Your task to perform on an android device: change the upload size in google photos Image 0: 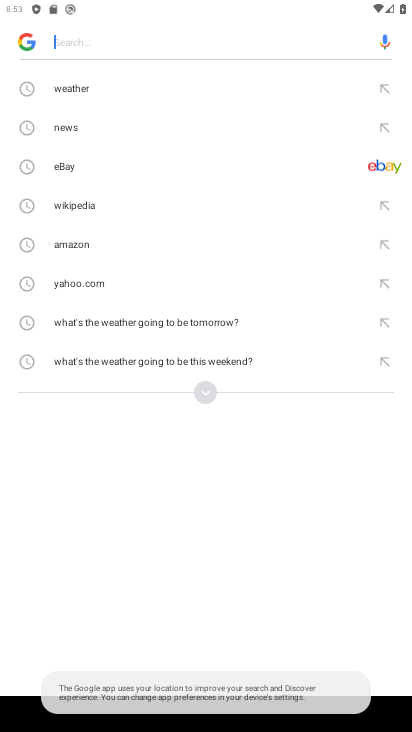
Step 0: press back button
Your task to perform on an android device: change the upload size in google photos Image 1: 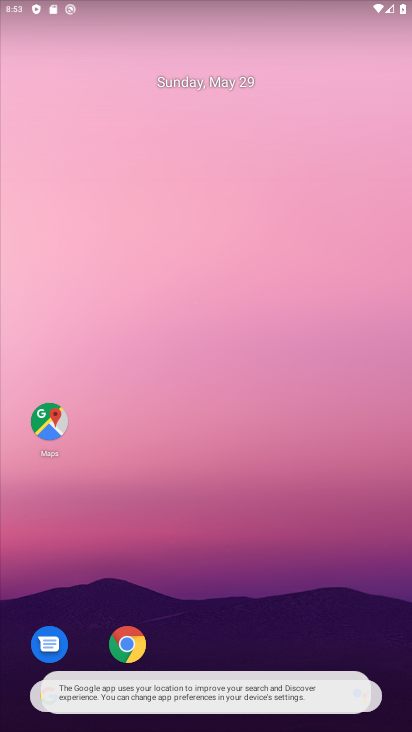
Step 1: drag from (212, 515) to (127, 27)
Your task to perform on an android device: change the upload size in google photos Image 2: 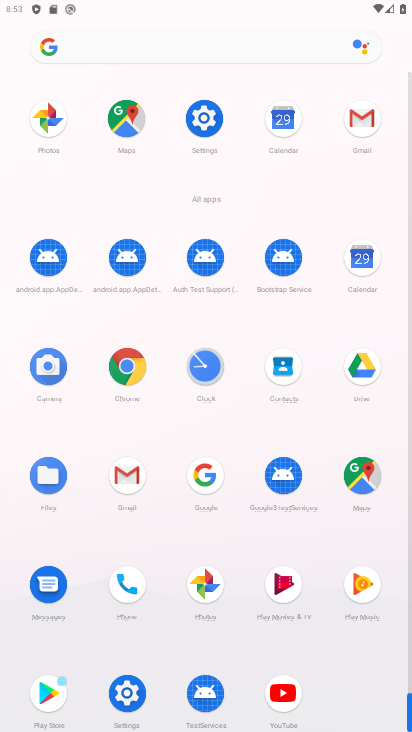
Step 2: drag from (17, 534) to (11, 165)
Your task to perform on an android device: change the upload size in google photos Image 3: 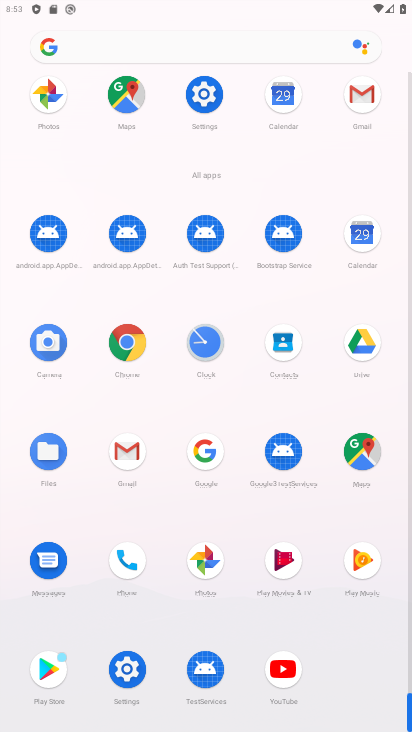
Step 3: click (207, 558)
Your task to perform on an android device: change the upload size in google photos Image 4: 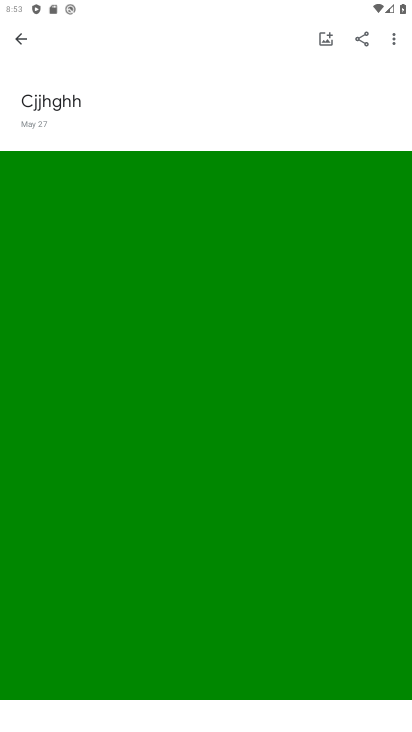
Step 4: click (25, 42)
Your task to perform on an android device: change the upload size in google photos Image 5: 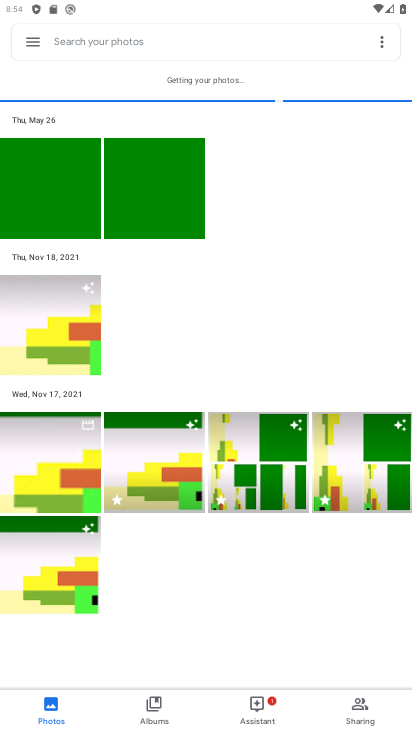
Step 5: click (28, 46)
Your task to perform on an android device: change the upload size in google photos Image 6: 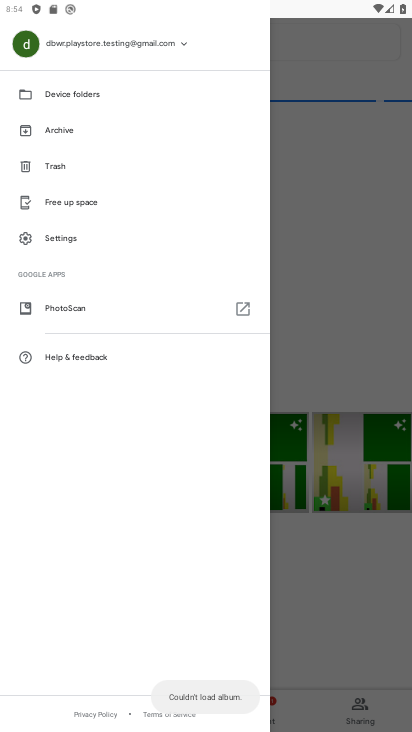
Step 6: click (82, 233)
Your task to perform on an android device: change the upload size in google photos Image 7: 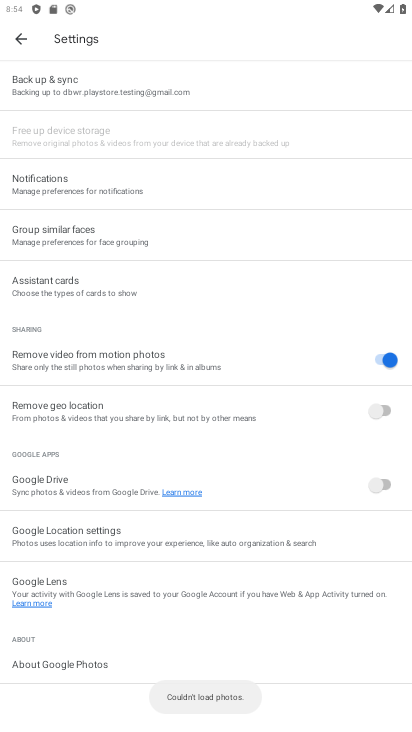
Step 7: drag from (212, 549) to (163, 148)
Your task to perform on an android device: change the upload size in google photos Image 8: 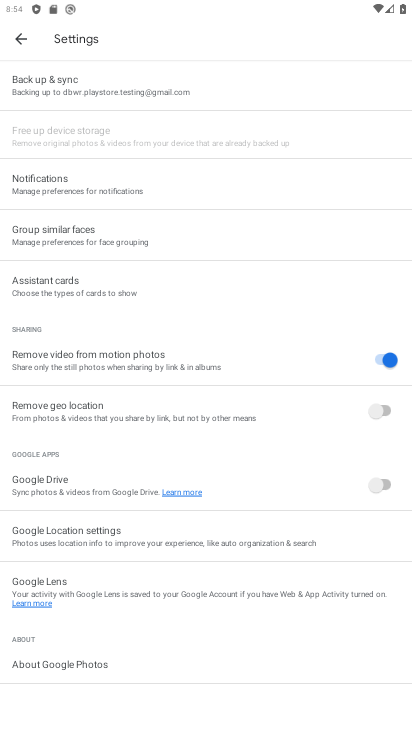
Step 8: click (147, 71)
Your task to perform on an android device: change the upload size in google photos Image 9: 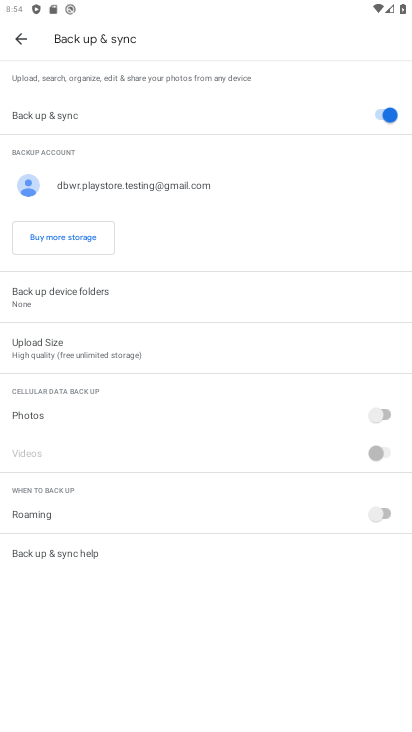
Step 9: click (107, 352)
Your task to perform on an android device: change the upload size in google photos Image 10: 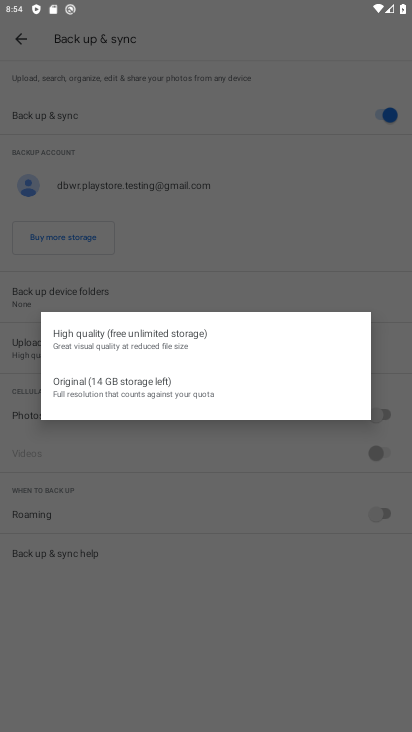
Step 10: click (101, 399)
Your task to perform on an android device: change the upload size in google photos Image 11: 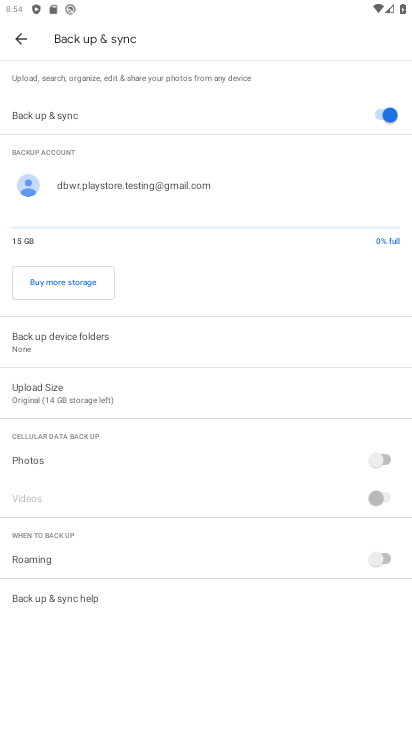
Step 11: task complete